Your task to perform on an android device: allow notifications from all sites in the chrome app Image 0: 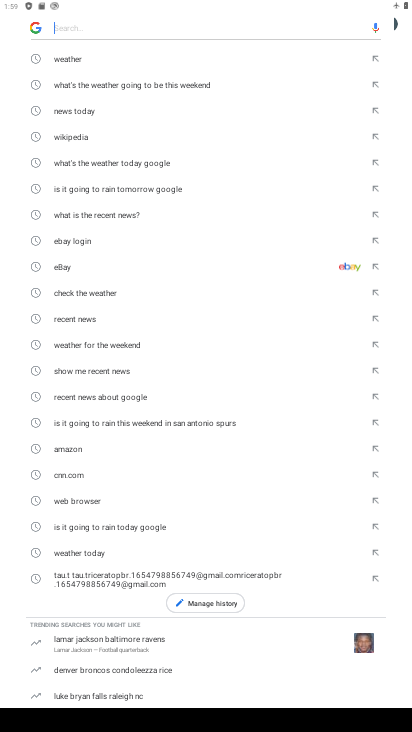
Step 0: press home button
Your task to perform on an android device: allow notifications from all sites in the chrome app Image 1: 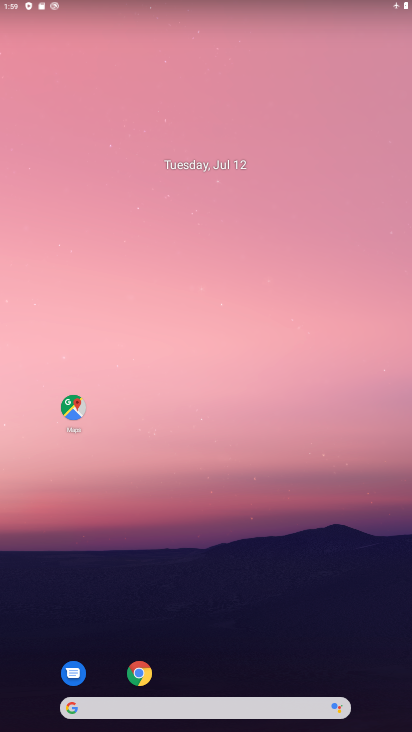
Step 1: drag from (298, 643) to (249, 168)
Your task to perform on an android device: allow notifications from all sites in the chrome app Image 2: 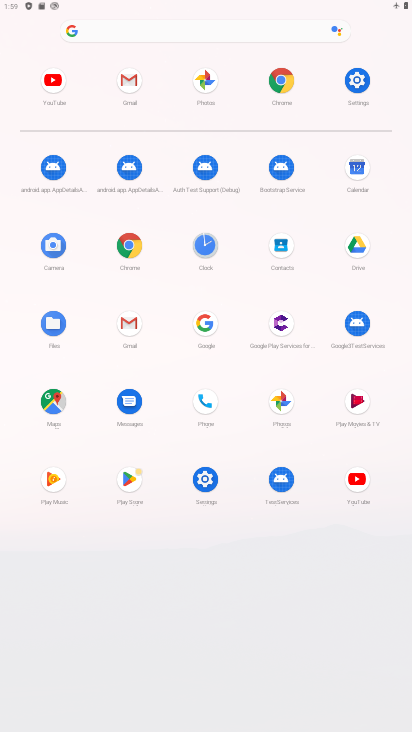
Step 2: click (277, 83)
Your task to perform on an android device: allow notifications from all sites in the chrome app Image 3: 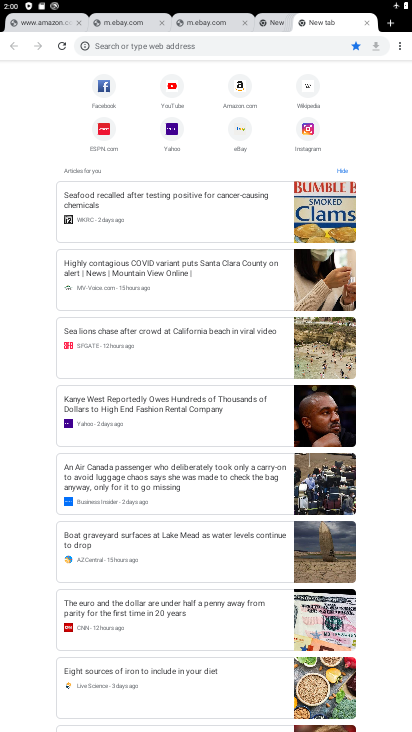
Step 3: click (393, 27)
Your task to perform on an android device: allow notifications from all sites in the chrome app Image 4: 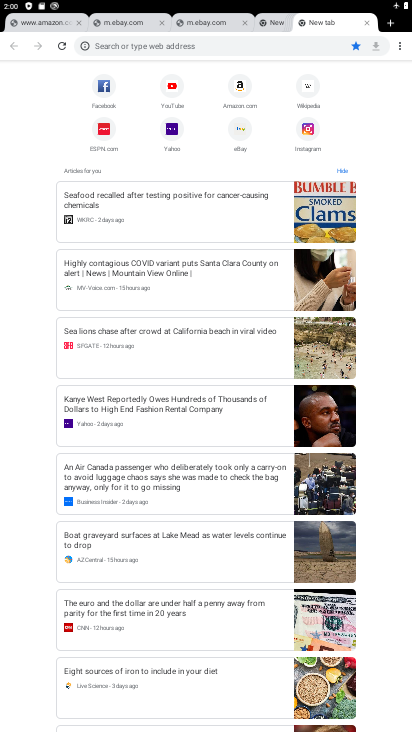
Step 4: click (402, 38)
Your task to perform on an android device: allow notifications from all sites in the chrome app Image 5: 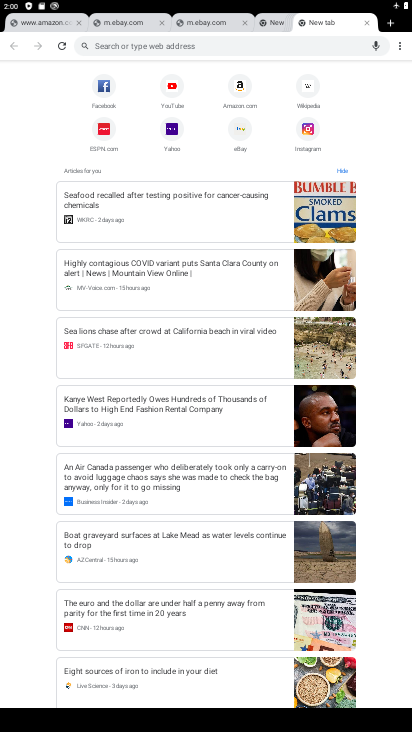
Step 5: click (404, 46)
Your task to perform on an android device: allow notifications from all sites in the chrome app Image 6: 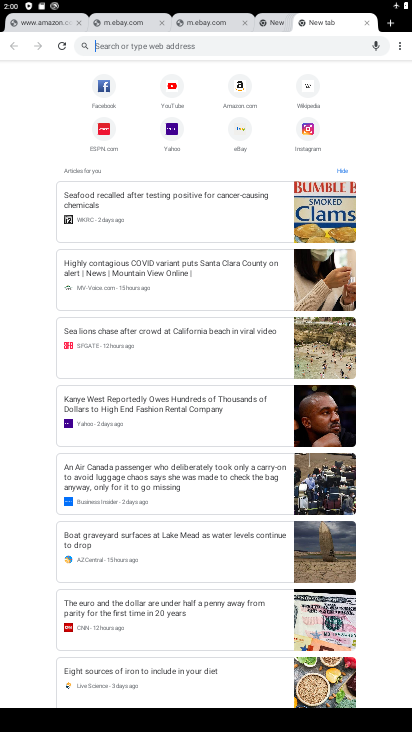
Step 6: click (394, 44)
Your task to perform on an android device: allow notifications from all sites in the chrome app Image 7: 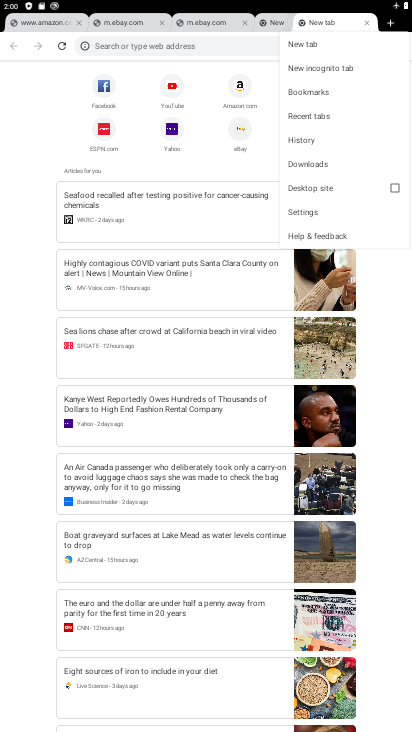
Step 7: click (302, 209)
Your task to perform on an android device: allow notifications from all sites in the chrome app Image 8: 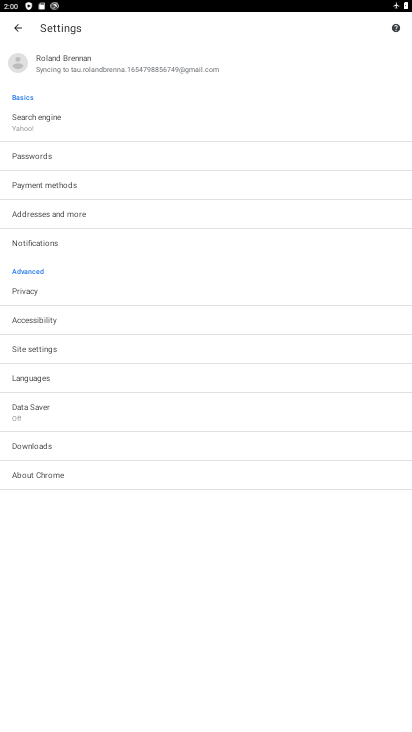
Step 8: click (50, 347)
Your task to perform on an android device: allow notifications from all sites in the chrome app Image 9: 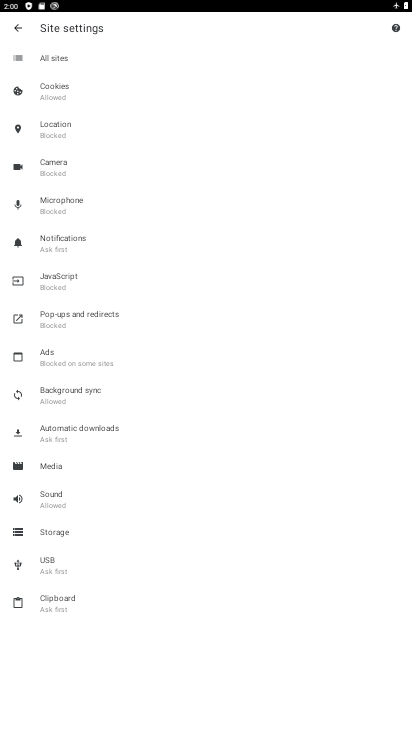
Step 9: click (68, 82)
Your task to perform on an android device: allow notifications from all sites in the chrome app Image 10: 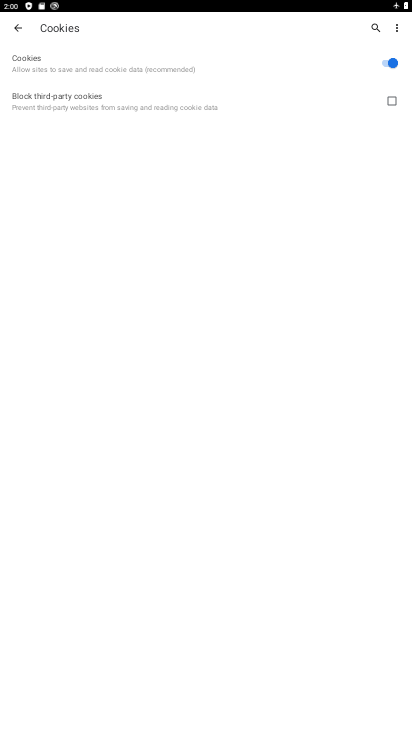
Step 10: click (14, 31)
Your task to perform on an android device: allow notifications from all sites in the chrome app Image 11: 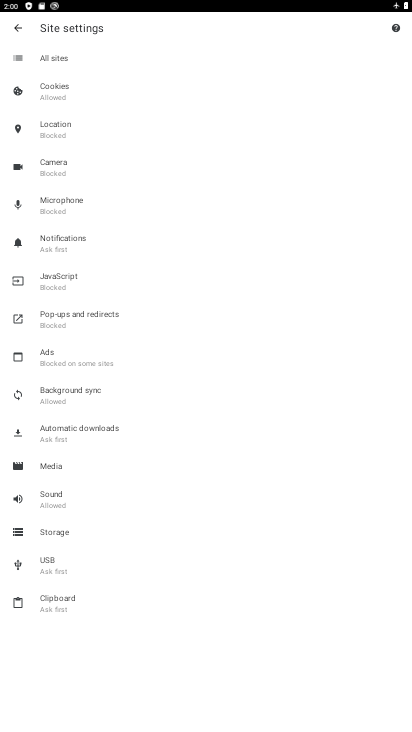
Step 11: click (97, 140)
Your task to perform on an android device: allow notifications from all sites in the chrome app Image 12: 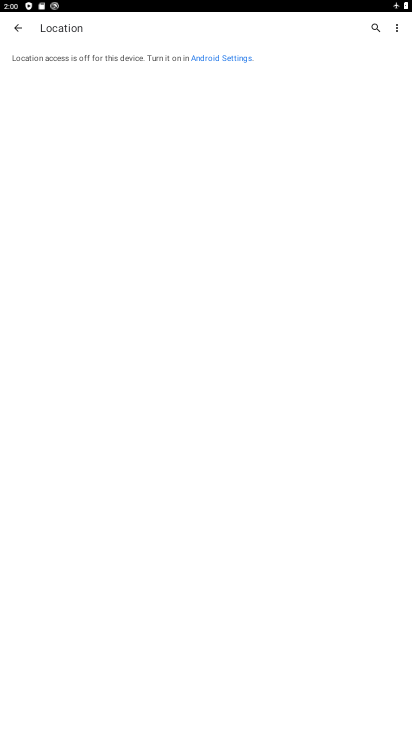
Step 12: click (13, 23)
Your task to perform on an android device: allow notifications from all sites in the chrome app Image 13: 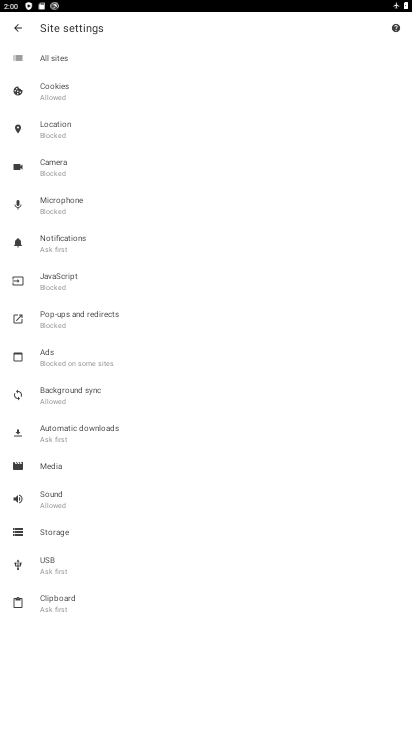
Step 13: click (13, 21)
Your task to perform on an android device: allow notifications from all sites in the chrome app Image 14: 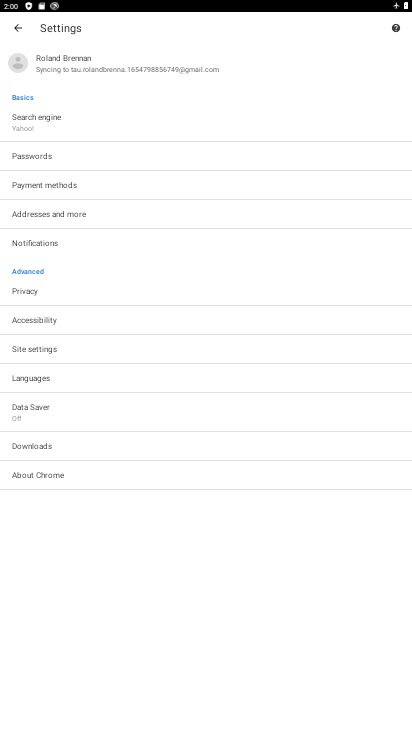
Step 14: click (52, 351)
Your task to perform on an android device: allow notifications from all sites in the chrome app Image 15: 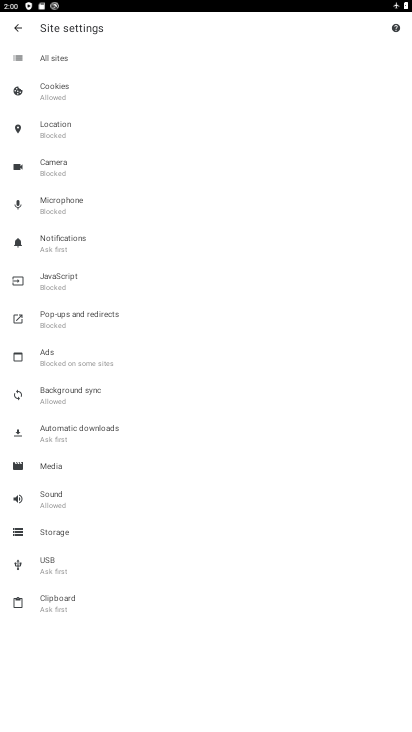
Step 15: task complete